Your task to perform on an android device: Go to battery settings Image 0: 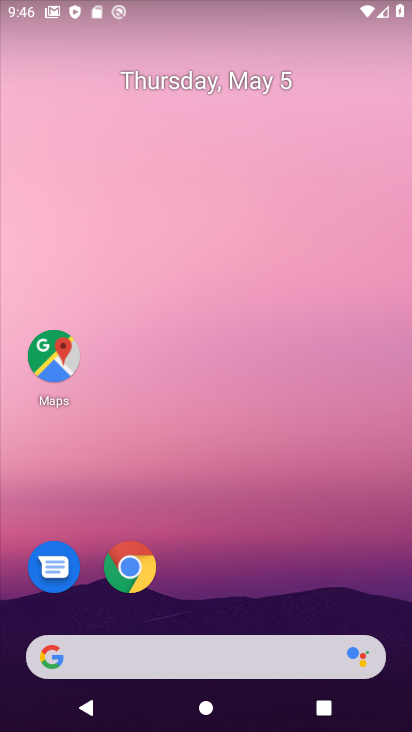
Step 0: drag from (408, 367) to (410, 13)
Your task to perform on an android device: Go to battery settings Image 1: 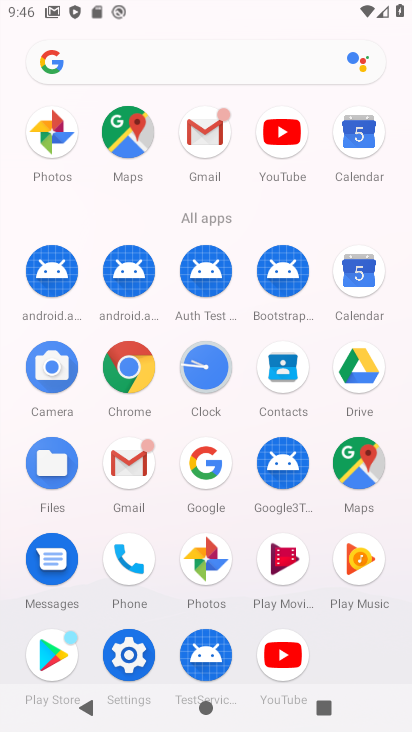
Step 1: click (126, 652)
Your task to perform on an android device: Go to battery settings Image 2: 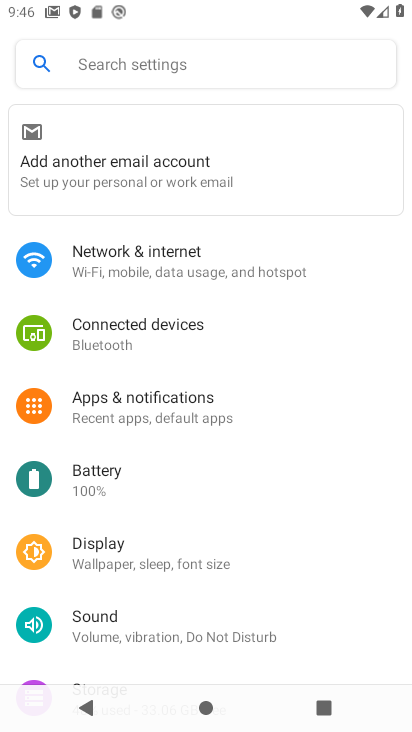
Step 2: drag from (166, 567) to (208, 327)
Your task to perform on an android device: Go to battery settings Image 3: 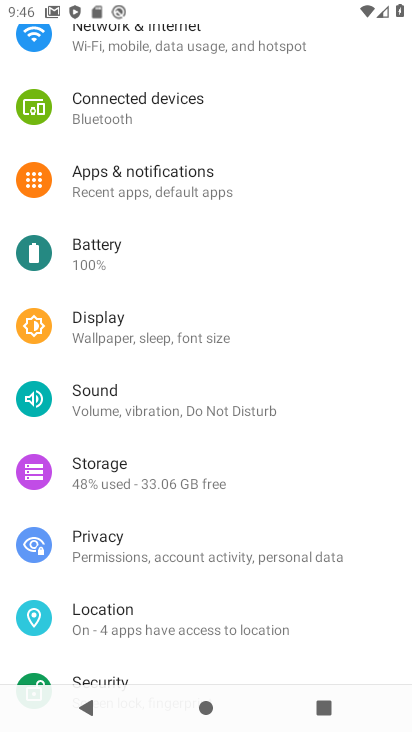
Step 3: click (103, 250)
Your task to perform on an android device: Go to battery settings Image 4: 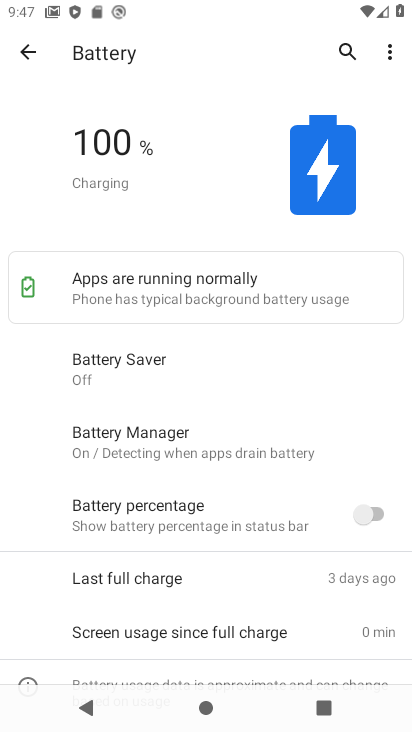
Step 4: task complete